Your task to perform on an android device: Open Chrome and go to settings Image 0: 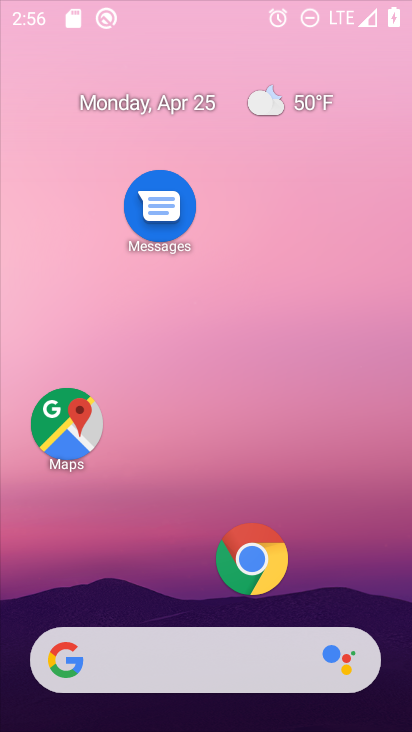
Step 0: drag from (179, 64) to (196, 1)
Your task to perform on an android device: Open Chrome and go to settings Image 1: 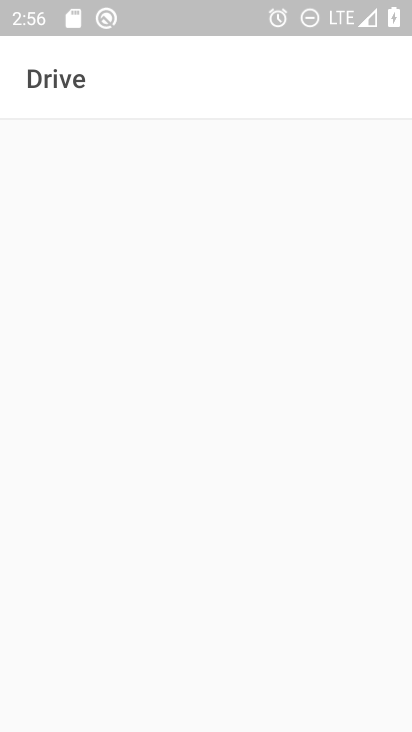
Step 1: press home button
Your task to perform on an android device: Open Chrome and go to settings Image 2: 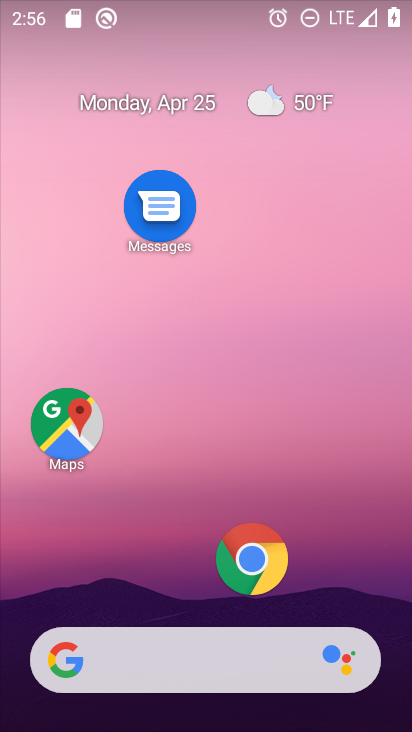
Step 2: click (267, 552)
Your task to perform on an android device: Open Chrome and go to settings Image 3: 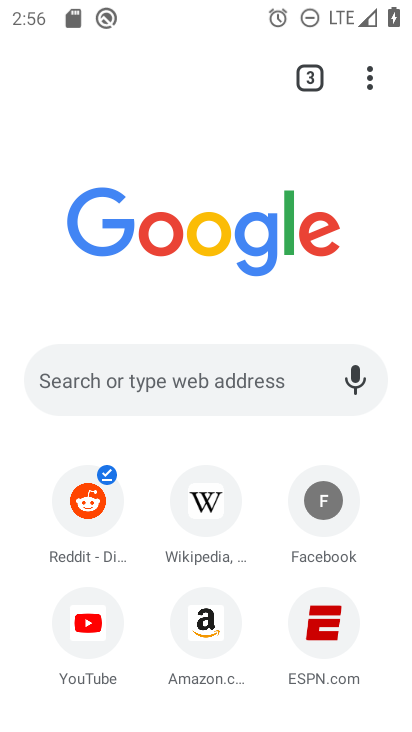
Step 3: click (372, 84)
Your task to perform on an android device: Open Chrome and go to settings Image 4: 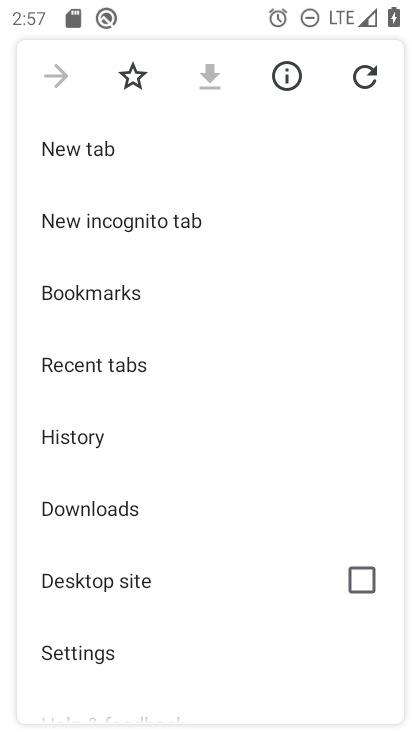
Step 4: click (75, 650)
Your task to perform on an android device: Open Chrome and go to settings Image 5: 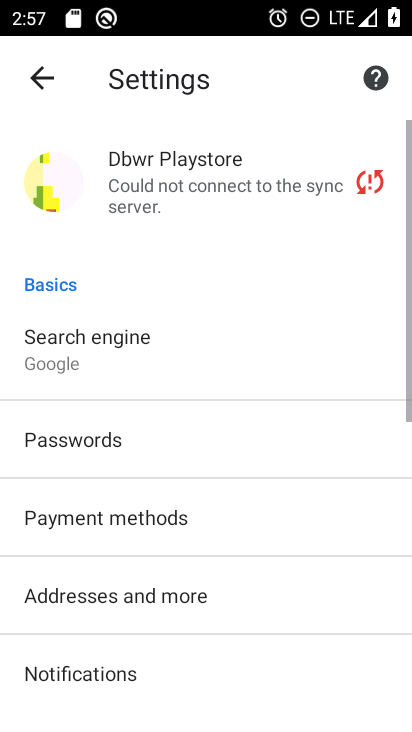
Step 5: task complete